Your task to perform on an android device: turn on priority inbox in the gmail app Image 0: 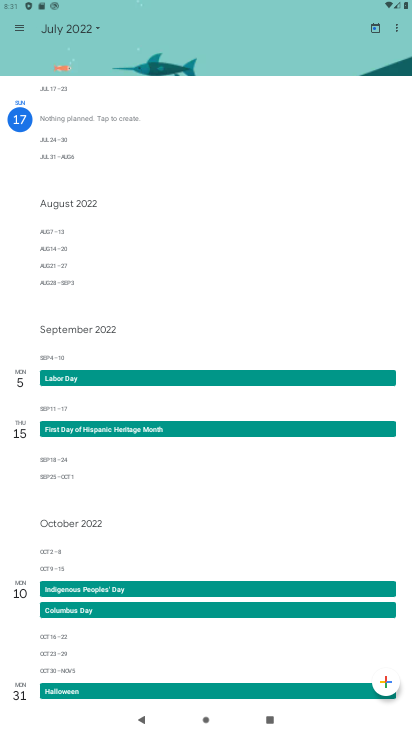
Step 0: press home button
Your task to perform on an android device: turn on priority inbox in the gmail app Image 1: 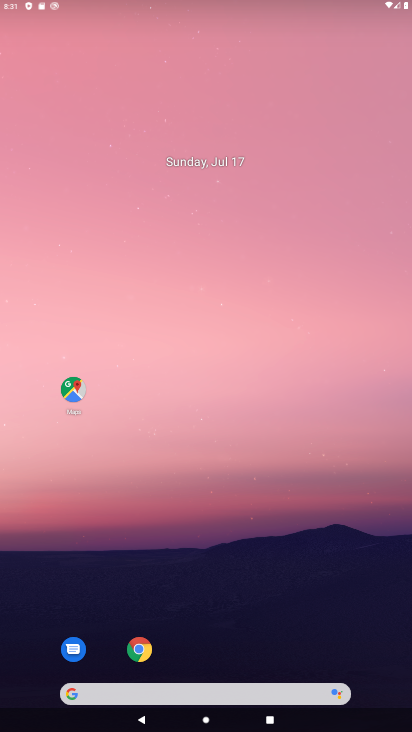
Step 1: drag from (247, 672) to (254, 131)
Your task to perform on an android device: turn on priority inbox in the gmail app Image 2: 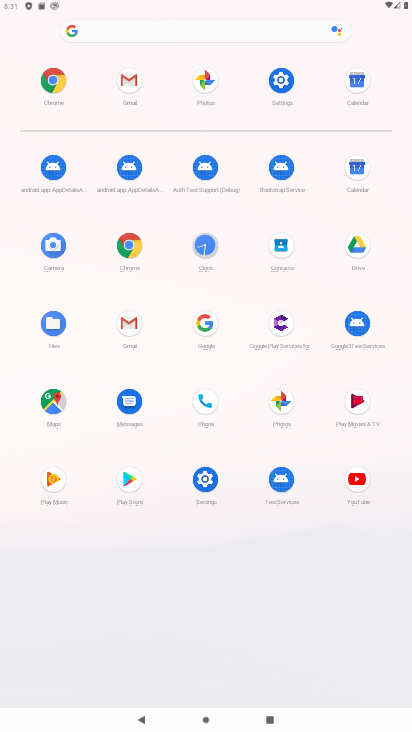
Step 2: click (125, 323)
Your task to perform on an android device: turn on priority inbox in the gmail app Image 3: 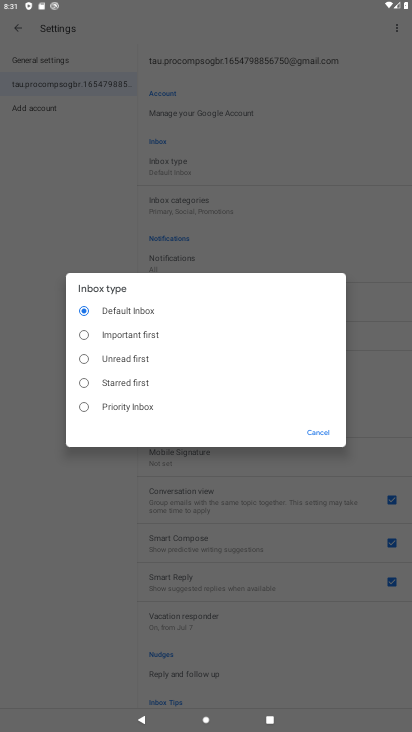
Step 3: click (84, 403)
Your task to perform on an android device: turn on priority inbox in the gmail app Image 4: 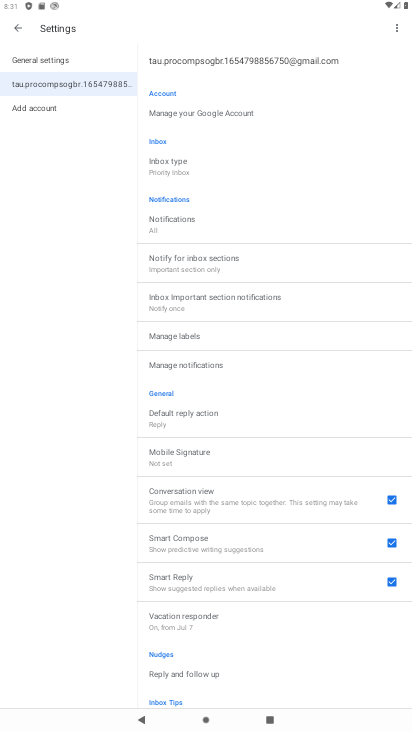
Step 4: task complete